Your task to perform on an android device: Is it going to rain this weekend? Image 0: 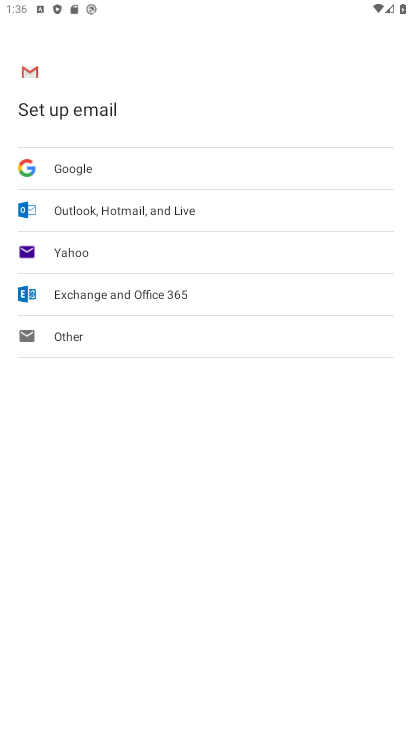
Step 0: press home button
Your task to perform on an android device: Is it going to rain this weekend? Image 1: 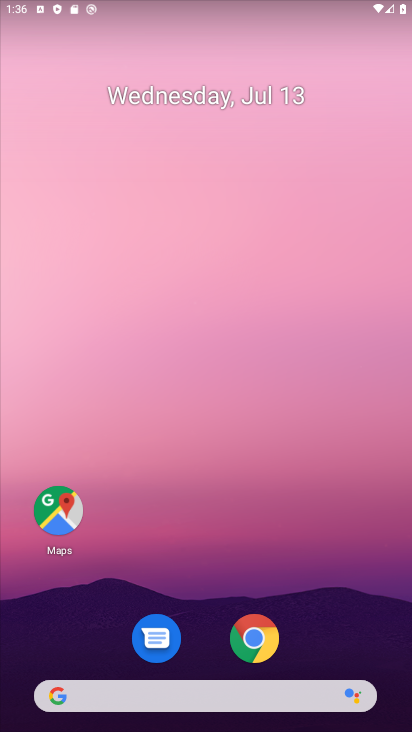
Step 1: click (282, 694)
Your task to perform on an android device: Is it going to rain this weekend? Image 2: 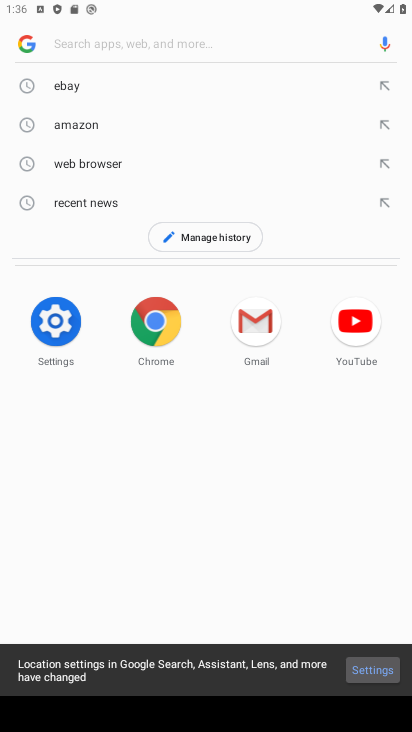
Step 2: type "Is it going to rain this weekend?"
Your task to perform on an android device: Is it going to rain this weekend? Image 3: 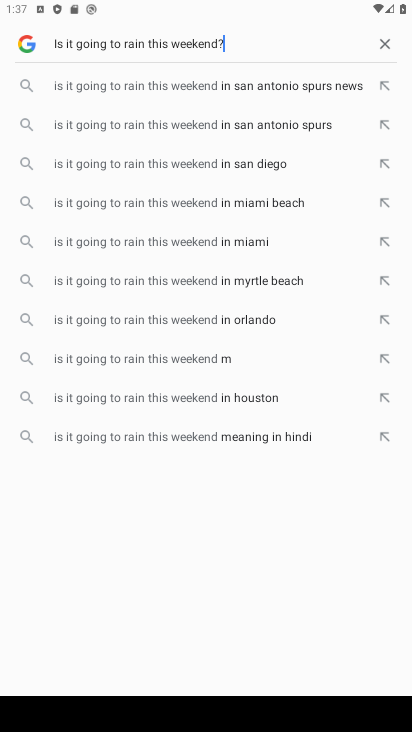
Step 3: press enter
Your task to perform on an android device: Is it going to rain this weekend? Image 4: 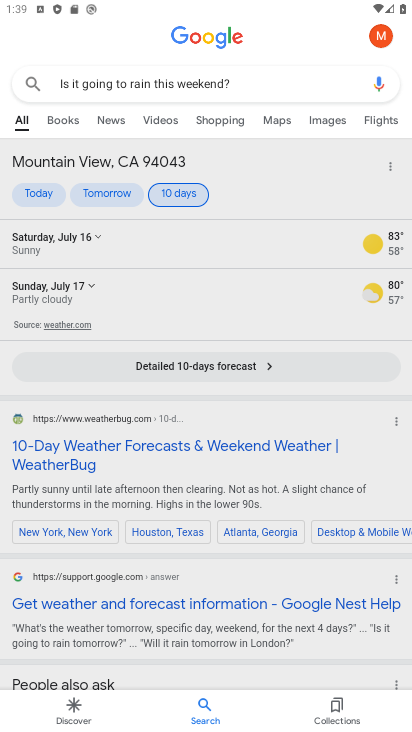
Step 4: task complete